Your task to perform on an android device: Go to location settings Image 0: 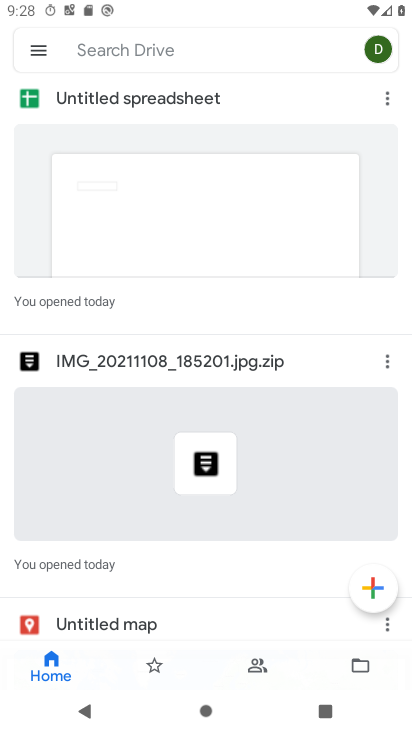
Step 0: press home button
Your task to perform on an android device: Go to location settings Image 1: 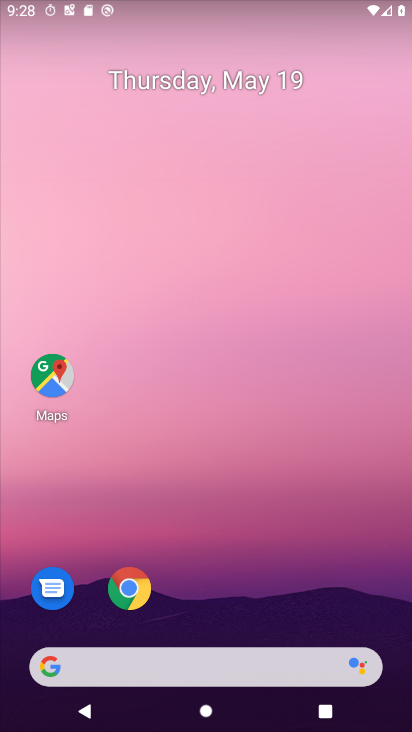
Step 1: drag from (156, 642) to (278, 187)
Your task to perform on an android device: Go to location settings Image 2: 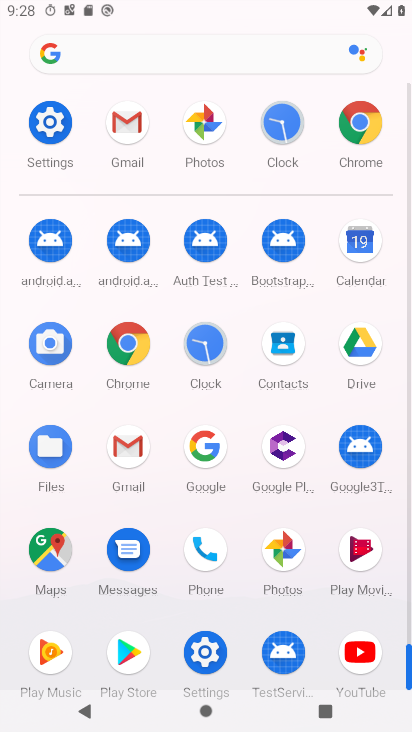
Step 2: click (54, 128)
Your task to perform on an android device: Go to location settings Image 3: 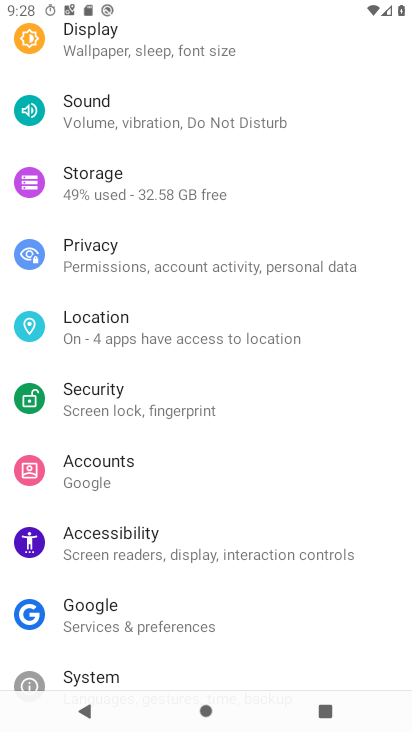
Step 3: click (117, 321)
Your task to perform on an android device: Go to location settings Image 4: 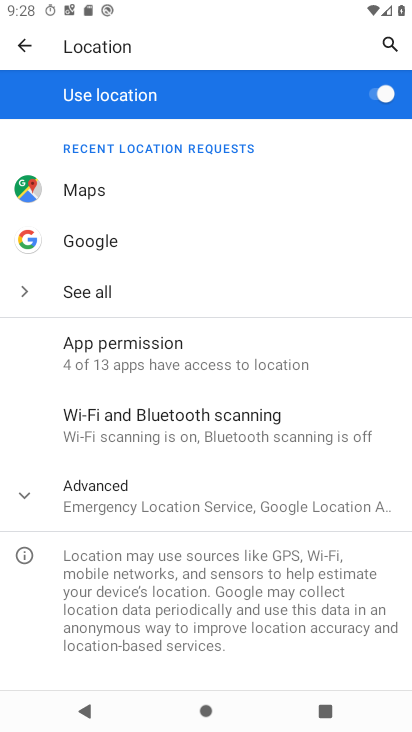
Step 4: task complete